Your task to perform on an android device: Go to privacy settings Image 0: 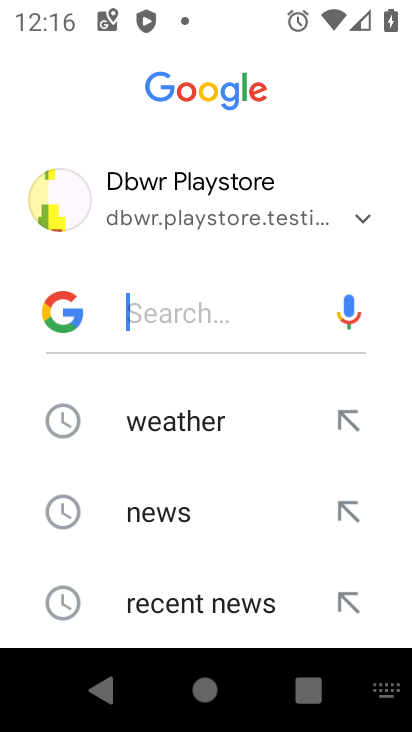
Step 0: press home button
Your task to perform on an android device: Go to privacy settings Image 1: 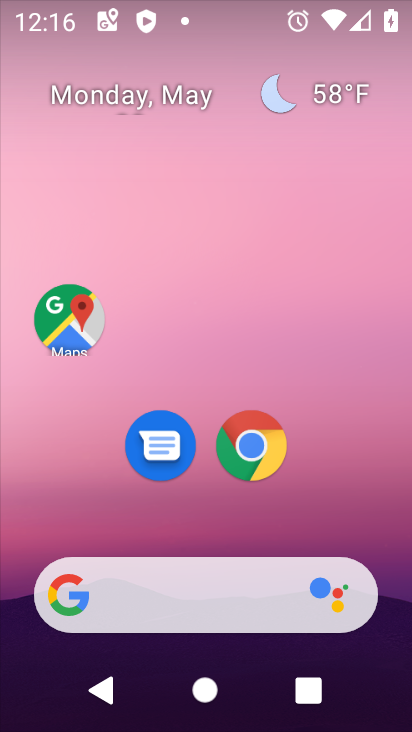
Step 1: drag from (212, 516) to (221, 99)
Your task to perform on an android device: Go to privacy settings Image 2: 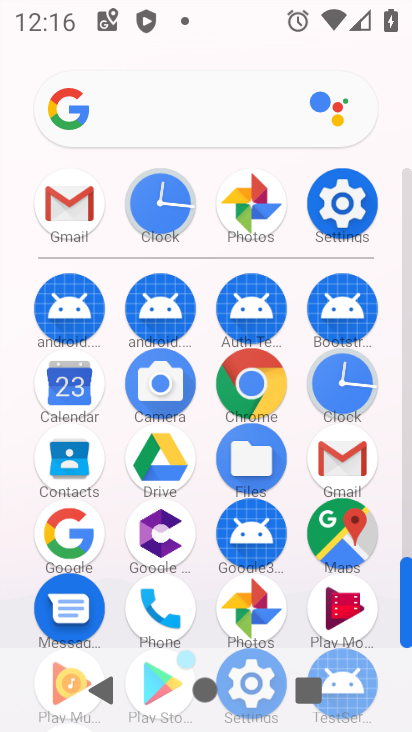
Step 2: click (343, 197)
Your task to perform on an android device: Go to privacy settings Image 3: 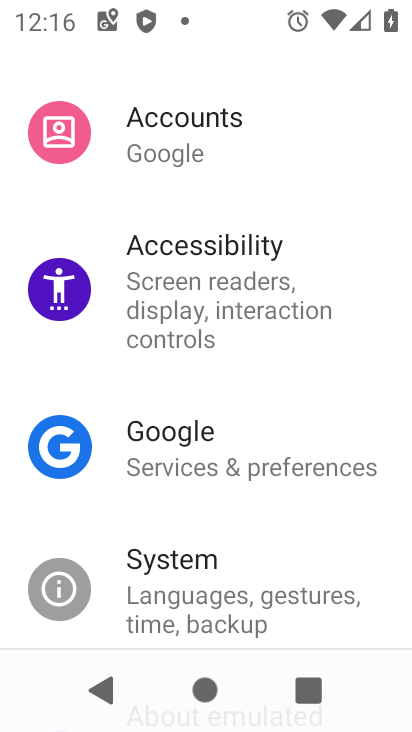
Step 3: drag from (175, 166) to (168, 673)
Your task to perform on an android device: Go to privacy settings Image 4: 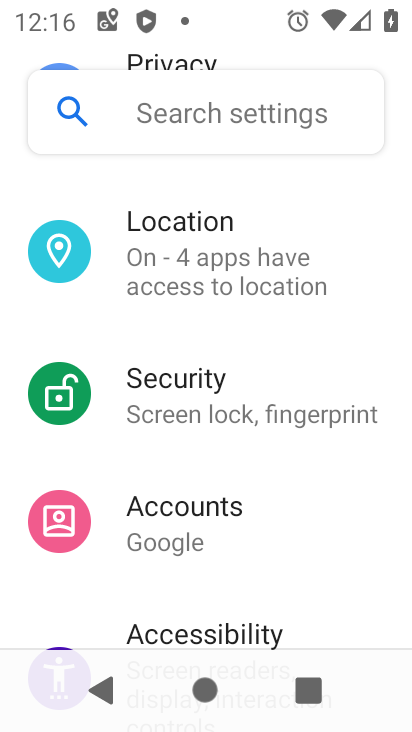
Step 4: drag from (105, 188) to (105, 602)
Your task to perform on an android device: Go to privacy settings Image 5: 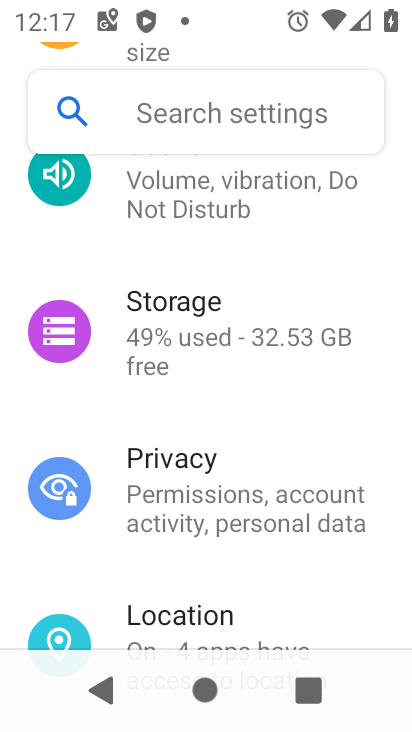
Step 5: click (109, 465)
Your task to perform on an android device: Go to privacy settings Image 6: 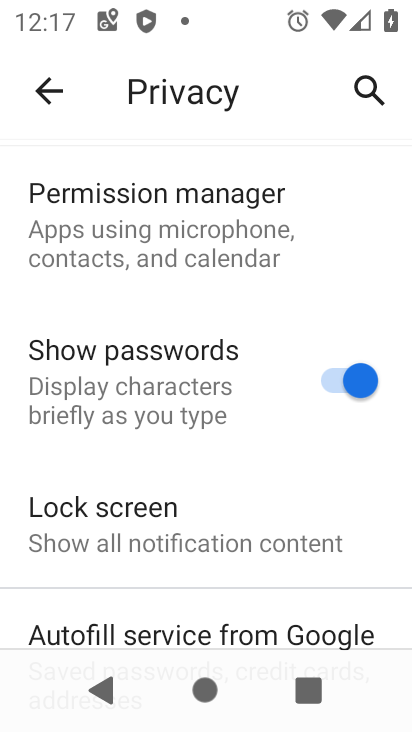
Step 6: drag from (194, 594) to (182, 140)
Your task to perform on an android device: Go to privacy settings Image 7: 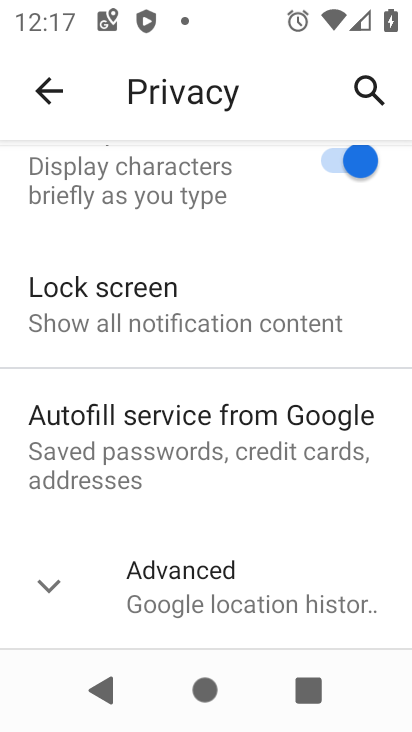
Step 7: click (47, 578)
Your task to perform on an android device: Go to privacy settings Image 8: 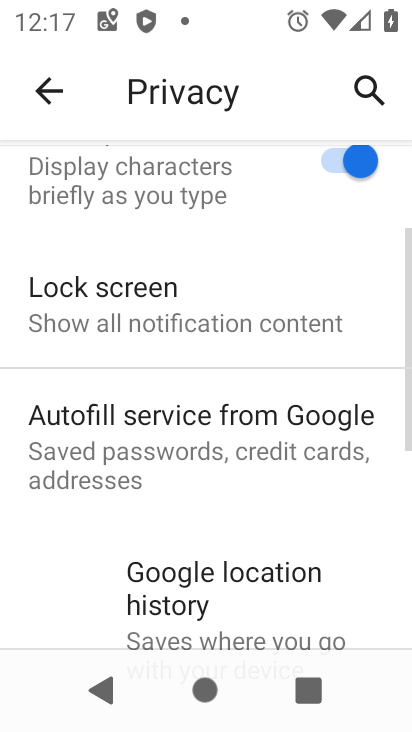
Step 8: task complete